Your task to perform on an android device: Open my contact list Image 0: 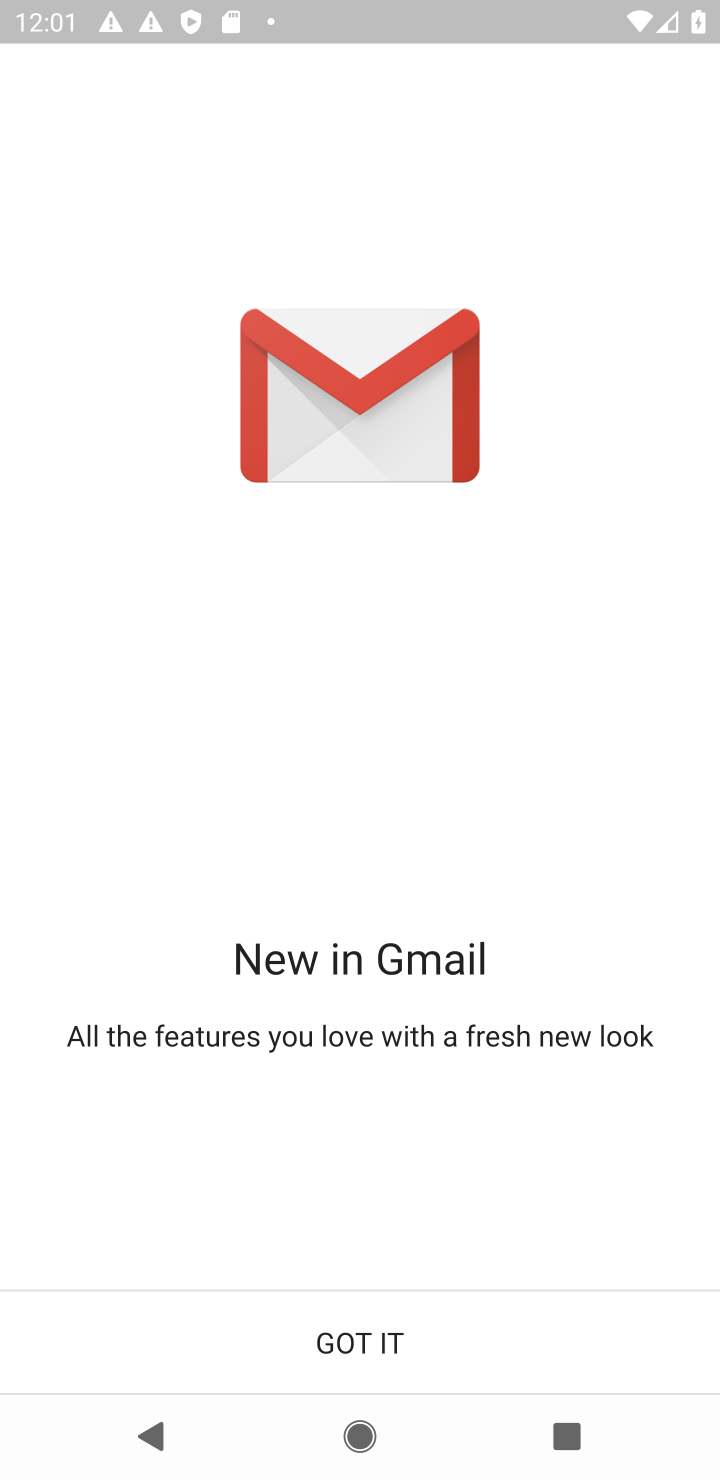
Step 0: press home button
Your task to perform on an android device: Open my contact list Image 1: 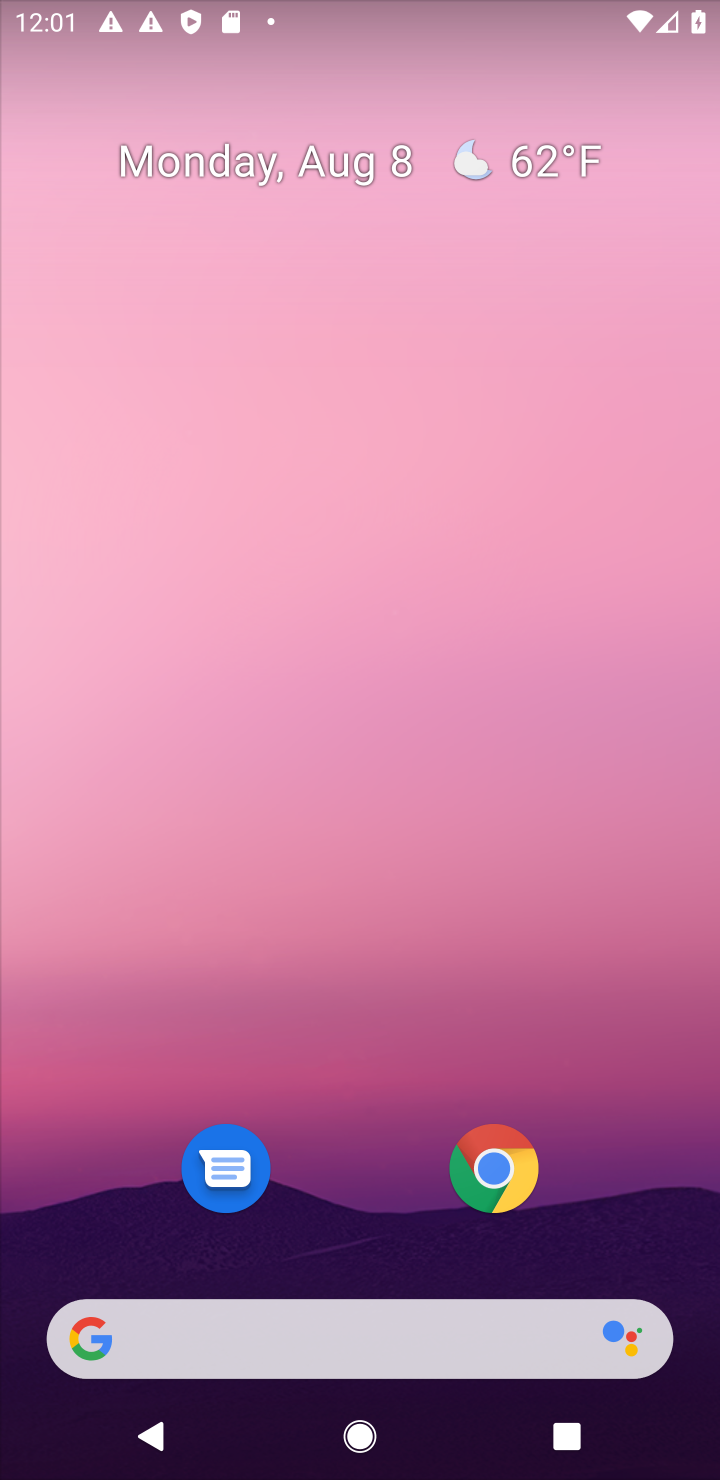
Step 1: drag from (380, 1257) to (228, 4)
Your task to perform on an android device: Open my contact list Image 2: 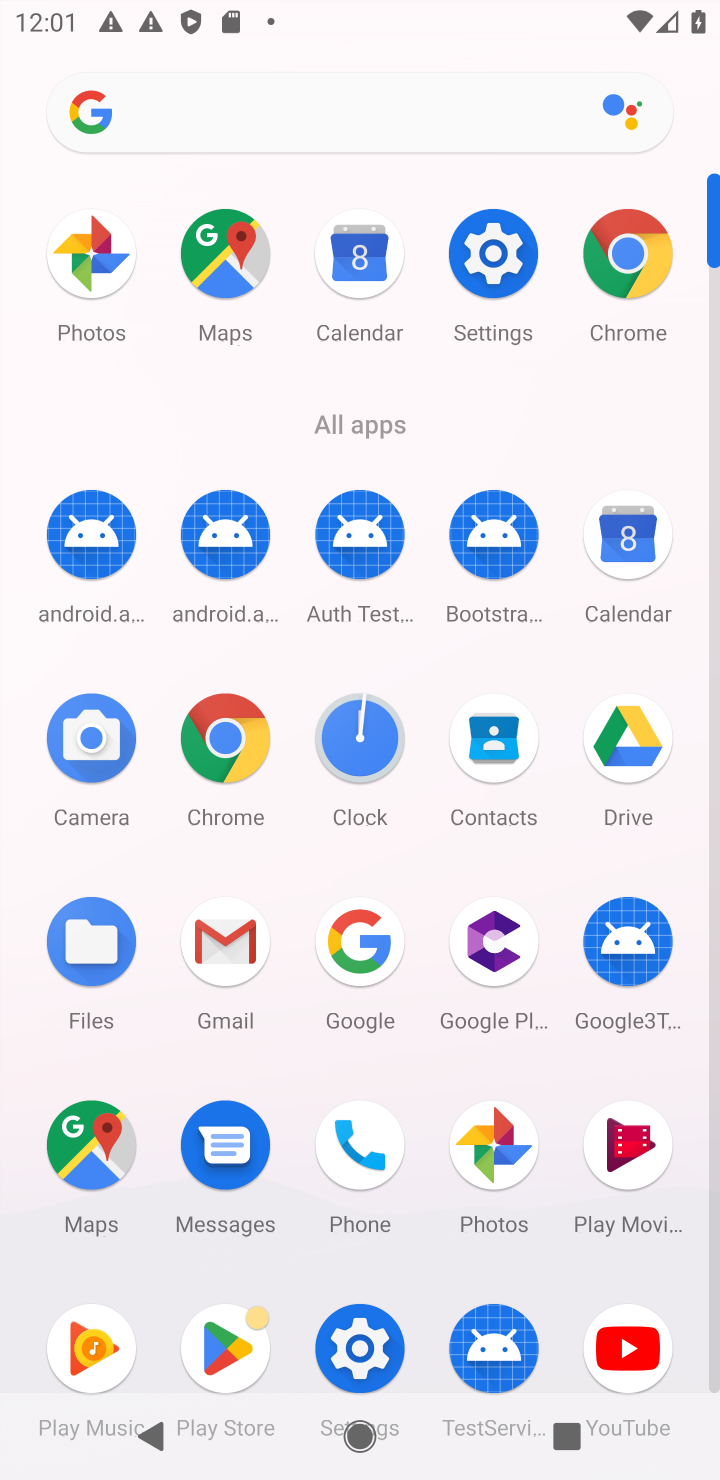
Step 2: click (505, 758)
Your task to perform on an android device: Open my contact list Image 3: 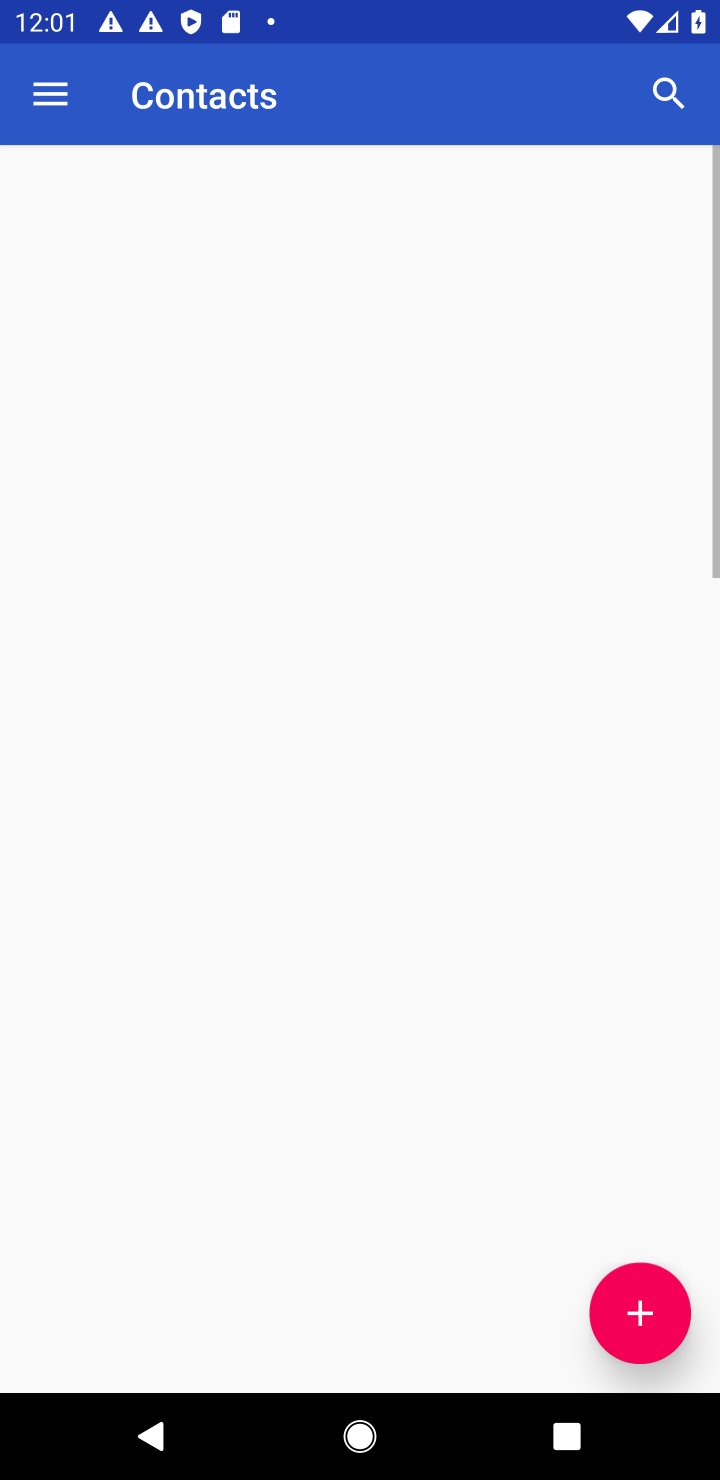
Step 3: task complete